Your task to perform on an android device: Go to accessibility settings Image 0: 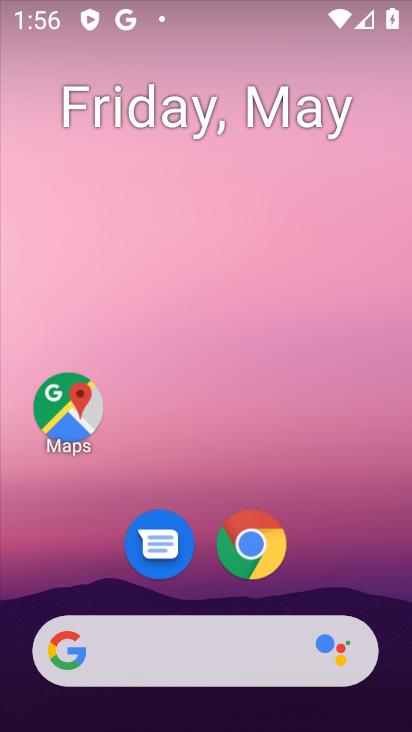
Step 0: drag from (199, 588) to (209, 194)
Your task to perform on an android device: Go to accessibility settings Image 1: 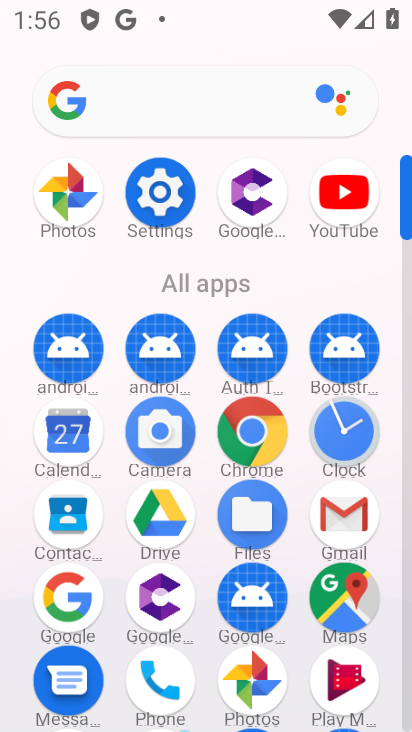
Step 1: click (163, 203)
Your task to perform on an android device: Go to accessibility settings Image 2: 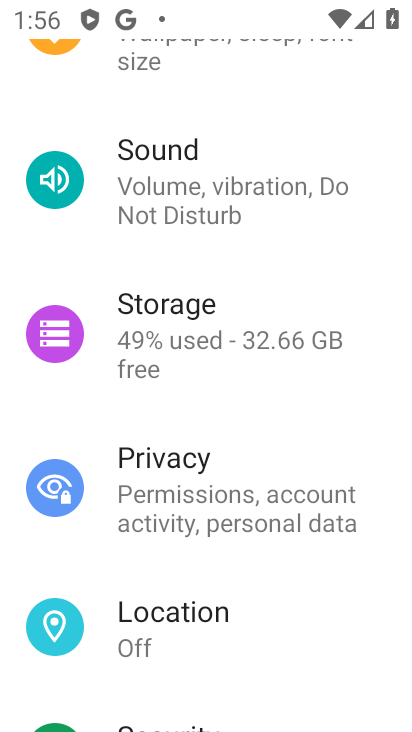
Step 2: drag from (225, 550) to (256, 164)
Your task to perform on an android device: Go to accessibility settings Image 3: 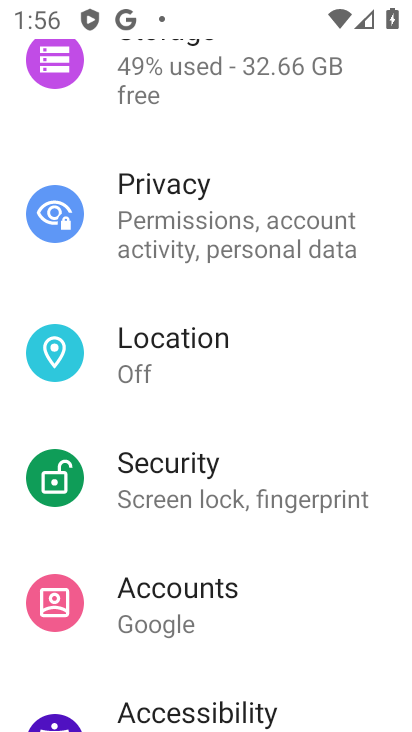
Step 3: drag from (236, 588) to (250, 246)
Your task to perform on an android device: Go to accessibility settings Image 4: 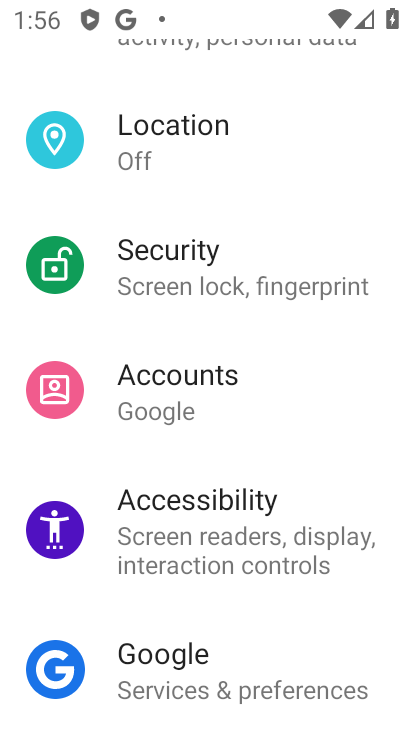
Step 4: click (202, 497)
Your task to perform on an android device: Go to accessibility settings Image 5: 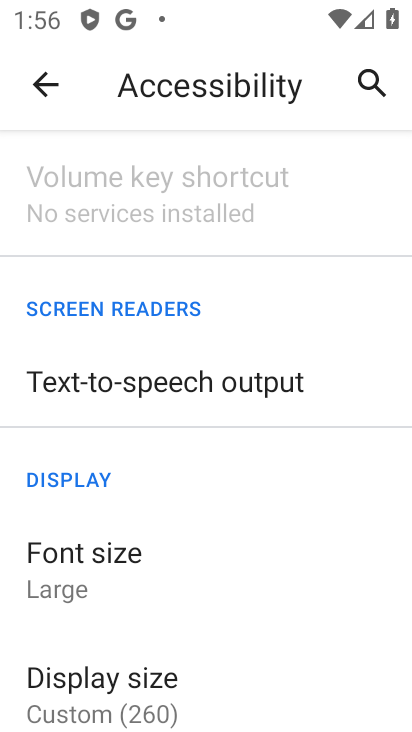
Step 5: task complete